Your task to perform on an android device: Go to display settings Image 0: 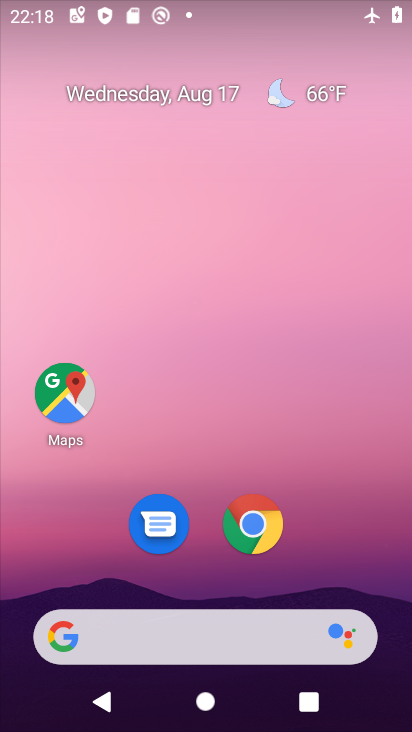
Step 0: drag from (318, 543) to (336, 0)
Your task to perform on an android device: Go to display settings Image 1: 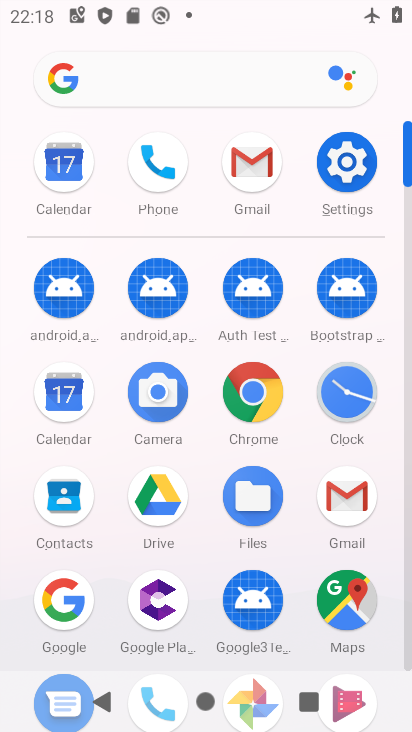
Step 1: click (351, 158)
Your task to perform on an android device: Go to display settings Image 2: 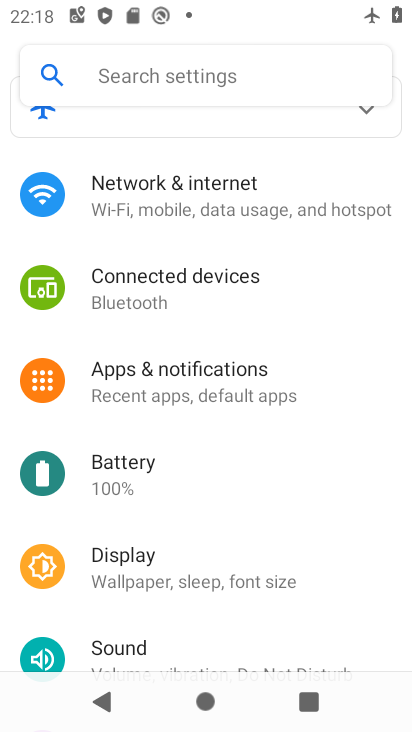
Step 2: click (183, 571)
Your task to perform on an android device: Go to display settings Image 3: 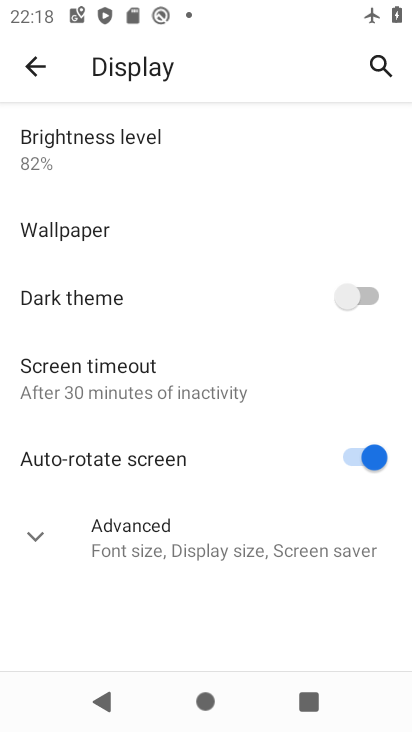
Step 3: task complete